Your task to perform on an android device: make emails show in primary in the gmail app Image 0: 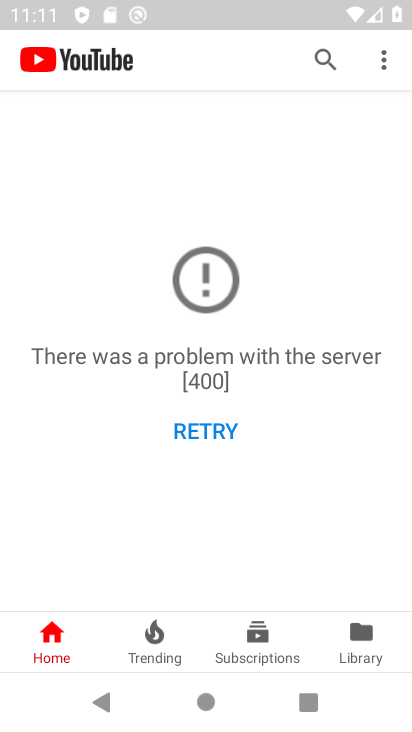
Step 0: press home button
Your task to perform on an android device: make emails show in primary in the gmail app Image 1: 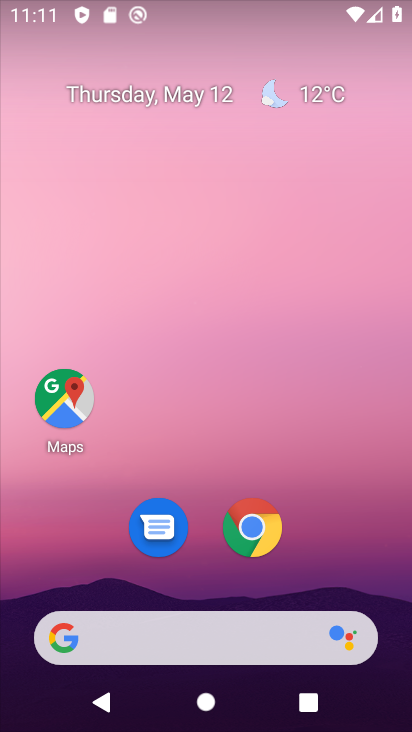
Step 1: drag from (21, 598) to (299, 147)
Your task to perform on an android device: make emails show in primary in the gmail app Image 2: 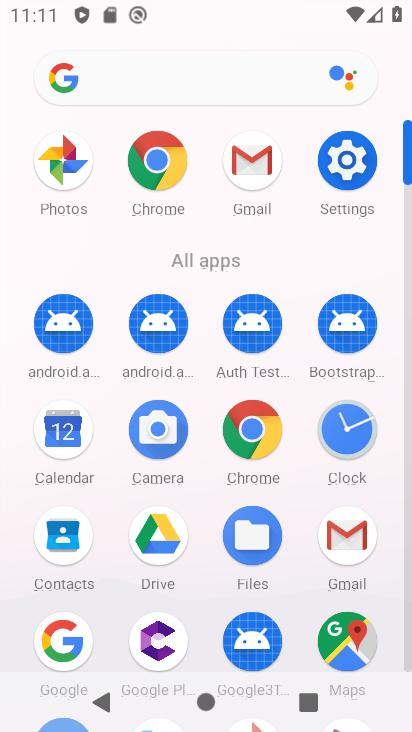
Step 2: click (265, 158)
Your task to perform on an android device: make emails show in primary in the gmail app Image 3: 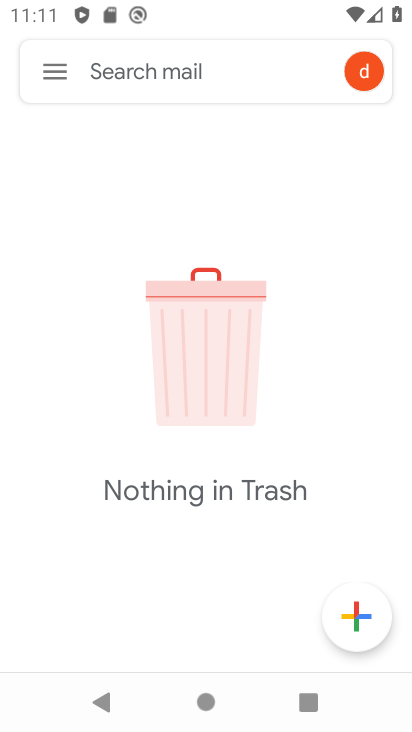
Step 3: click (60, 80)
Your task to perform on an android device: make emails show in primary in the gmail app Image 4: 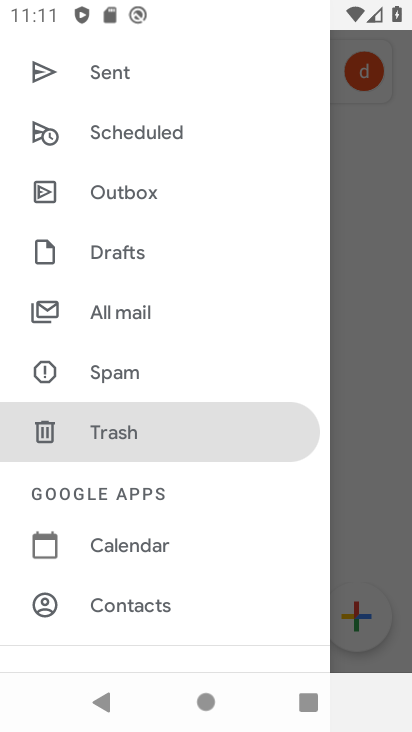
Step 4: drag from (115, 57) to (119, 593)
Your task to perform on an android device: make emails show in primary in the gmail app Image 5: 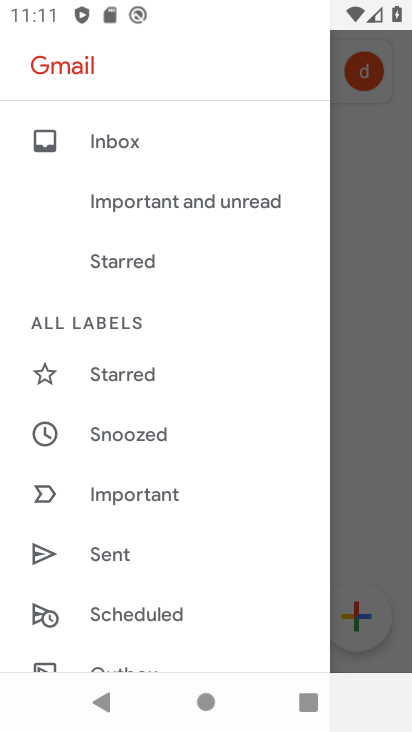
Step 5: drag from (164, 106) to (174, 683)
Your task to perform on an android device: make emails show in primary in the gmail app Image 6: 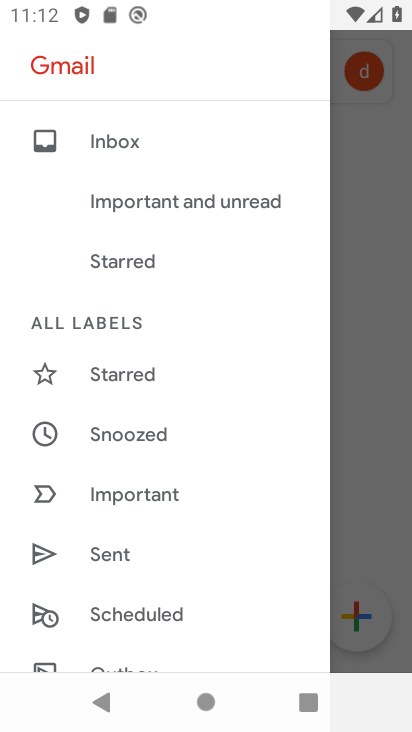
Step 6: drag from (86, 651) to (260, 134)
Your task to perform on an android device: make emails show in primary in the gmail app Image 7: 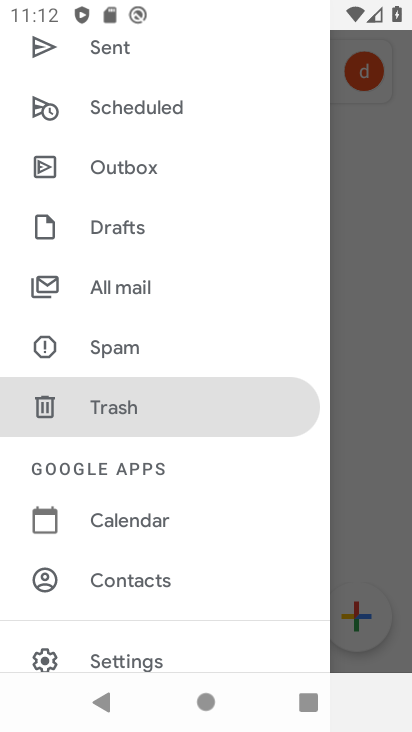
Step 7: click (119, 280)
Your task to perform on an android device: make emails show in primary in the gmail app Image 8: 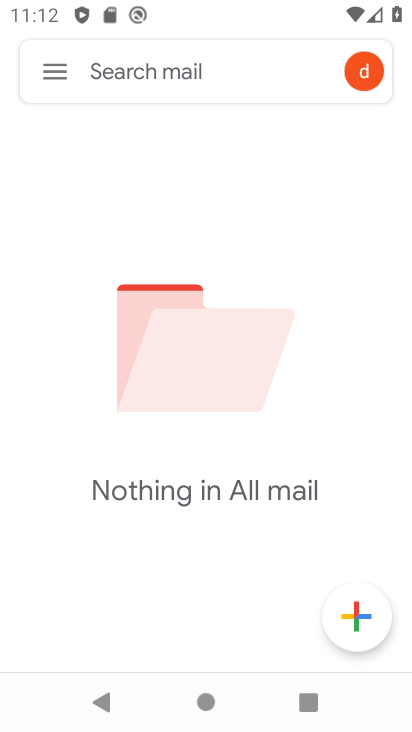
Step 8: press home button
Your task to perform on an android device: make emails show in primary in the gmail app Image 9: 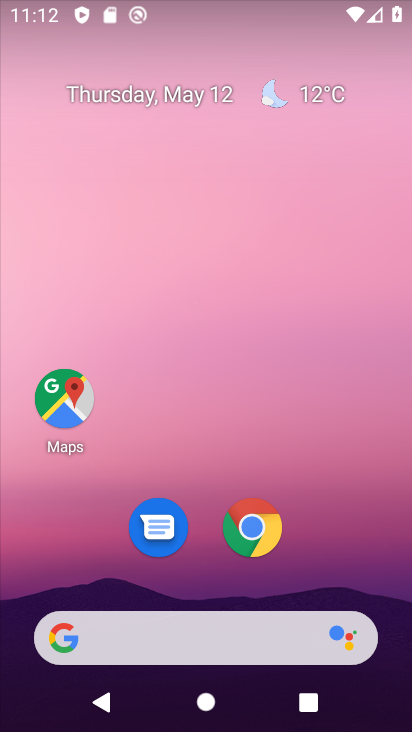
Step 9: drag from (27, 551) to (239, 169)
Your task to perform on an android device: make emails show in primary in the gmail app Image 10: 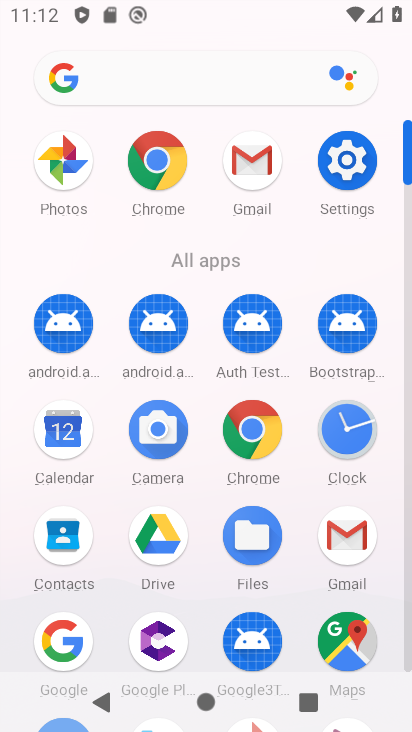
Step 10: click (262, 165)
Your task to perform on an android device: make emails show in primary in the gmail app Image 11: 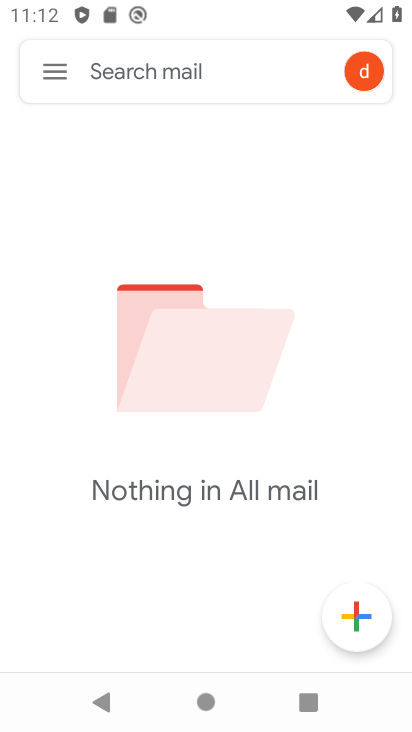
Step 11: click (39, 74)
Your task to perform on an android device: make emails show in primary in the gmail app Image 12: 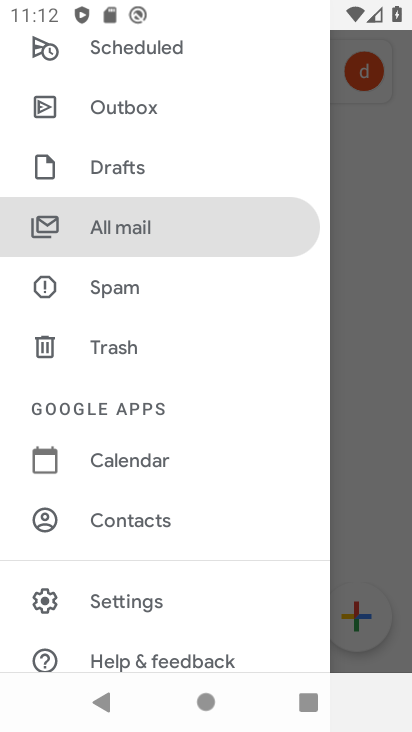
Step 12: task complete